Your task to perform on an android device: See recent photos Image 0: 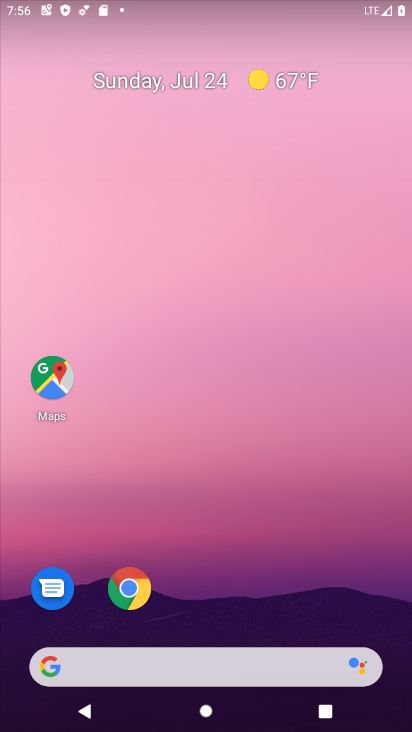
Step 0: drag from (315, 608) to (290, 151)
Your task to perform on an android device: See recent photos Image 1: 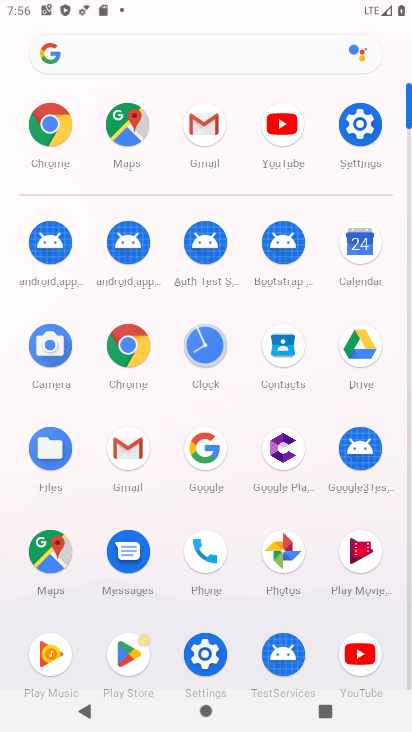
Step 1: click (282, 545)
Your task to perform on an android device: See recent photos Image 2: 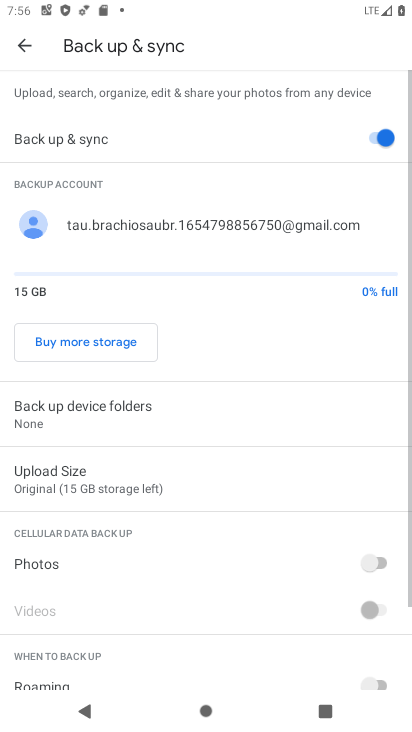
Step 2: click (26, 51)
Your task to perform on an android device: See recent photos Image 3: 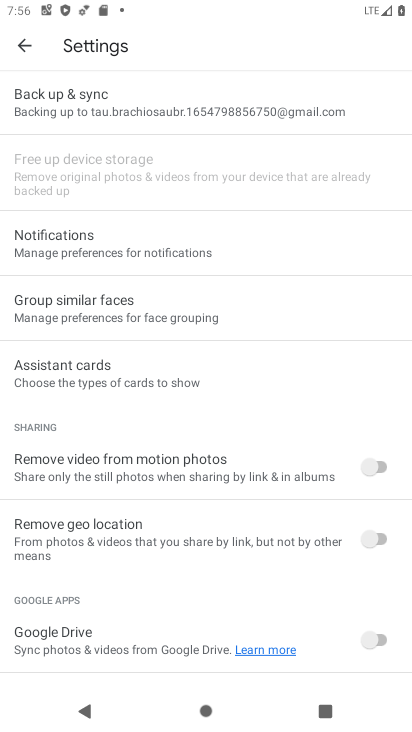
Step 3: click (21, 33)
Your task to perform on an android device: See recent photos Image 4: 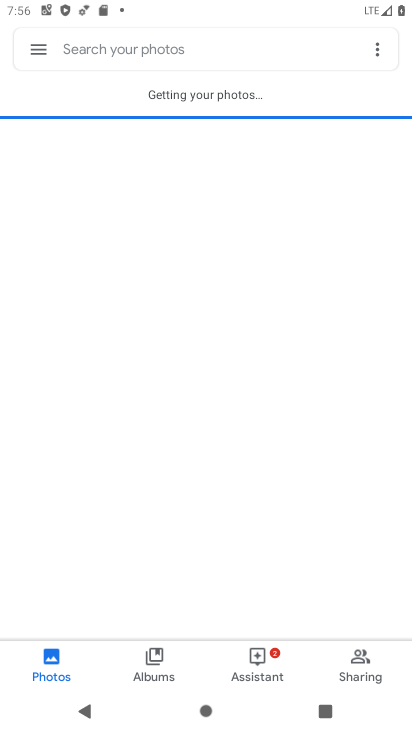
Step 4: click (153, 666)
Your task to perform on an android device: See recent photos Image 5: 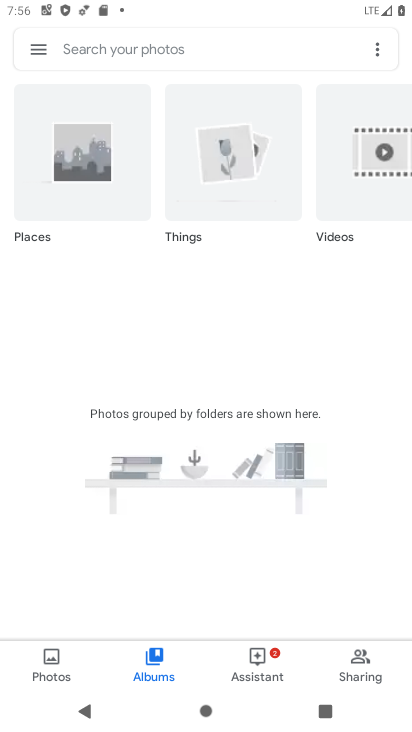
Step 5: click (49, 165)
Your task to perform on an android device: See recent photos Image 6: 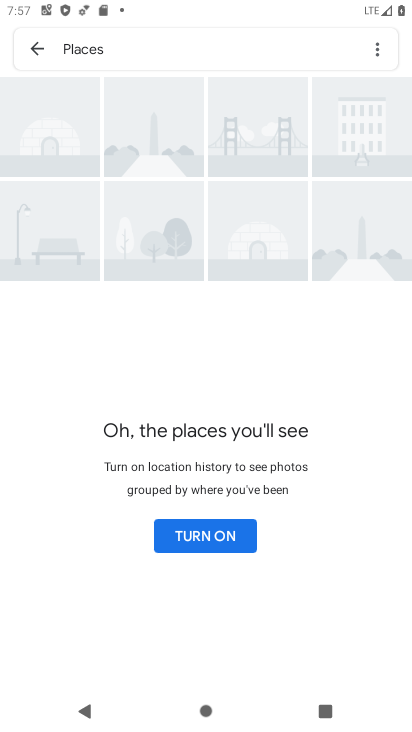
Step 6: click (246, 530)
Your task to perform on an android device: See recent photos Image 7: 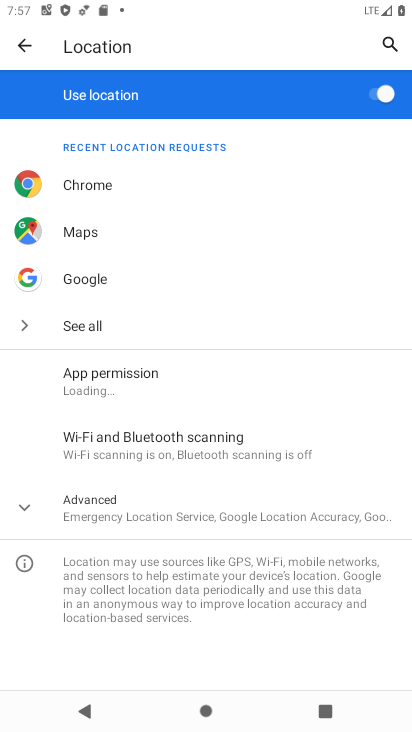
Step 7: click (30, 26)
Your task to perform on an android device: See recent photos Image 8: 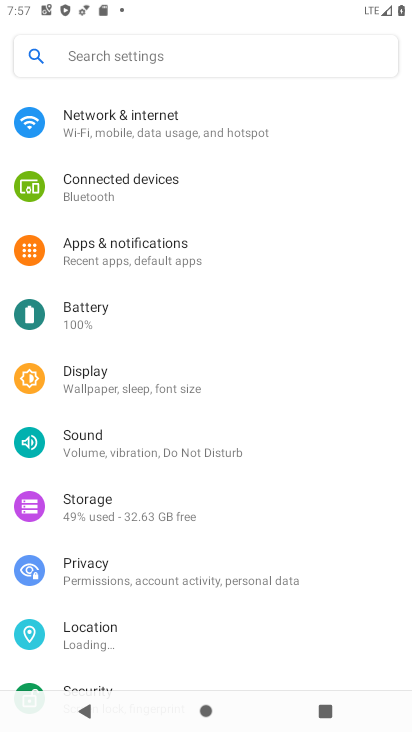
Step 8: click (30, 26)
Your task to perform on an android device: See recent photos Image 9: 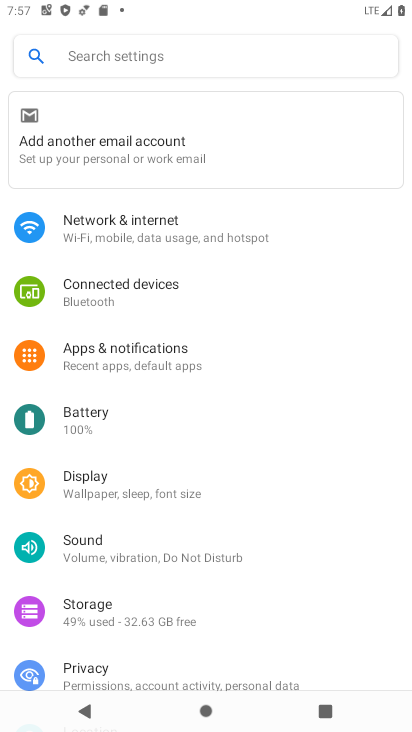
Step 9: press back button
Your task to perform on an android device: See recent photos Image 10: 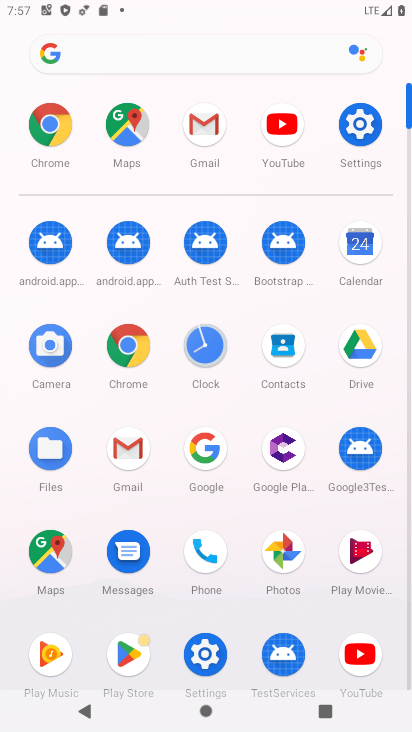
Step 10: click (292, 539)
Your task to perform on an android device: See recent photos Image 11: 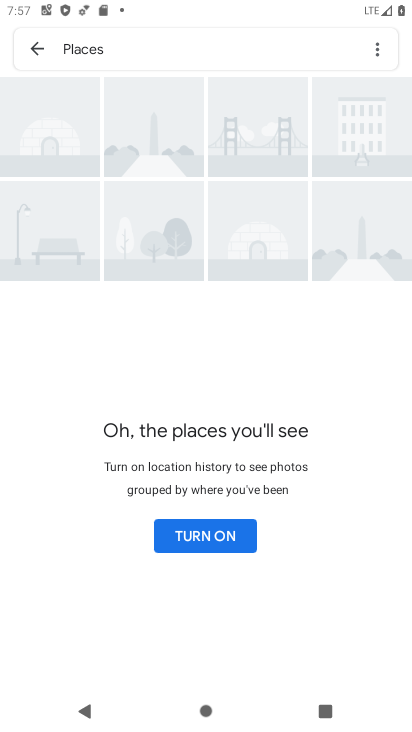
Step 11: click (45, 49)
Your task to perform on an android device: See recent photos Image 12: 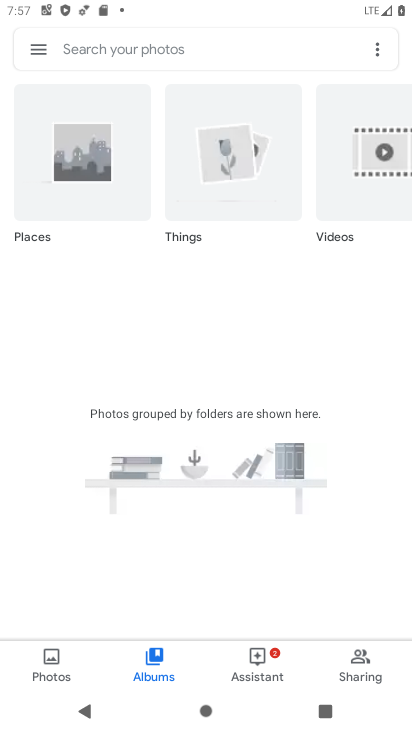
Step 12: task complete